Your task to perform on an android device: Open Wikipedia Image 0: 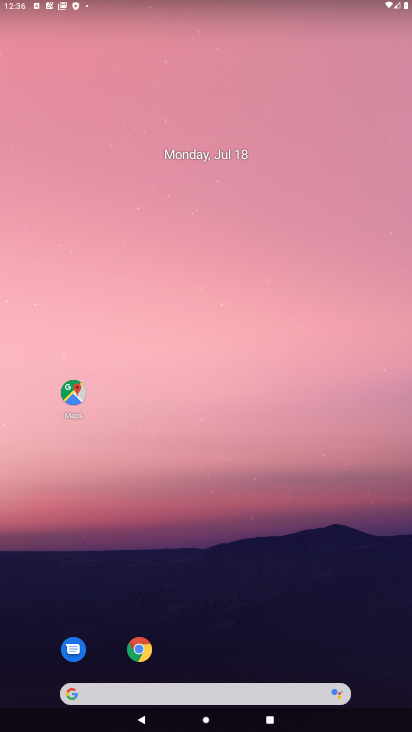
Step 0: click (139, 649)
Your task to perform on an android device: Open Wikipedia Image 1: 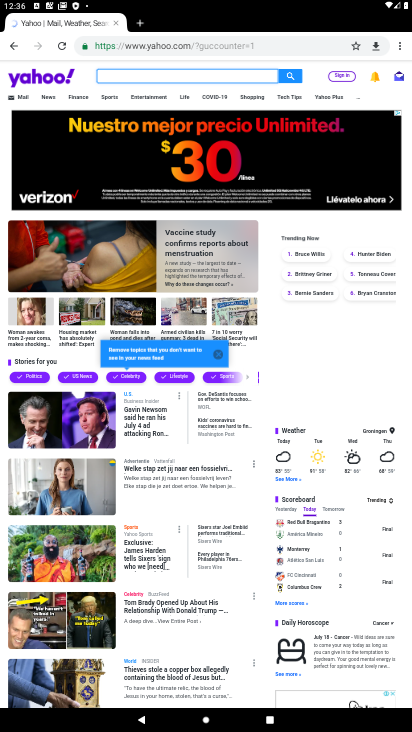
Step 1: click (270, 46)
Your task to perform on an android device: Open Wikipedia Image 2: 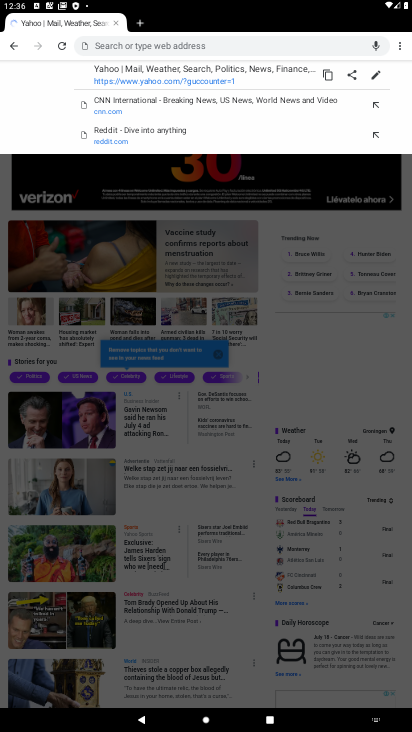
Step 2: type "Wikipedia"
Your task to perform on an android device: Open Wikipedia Image 3: 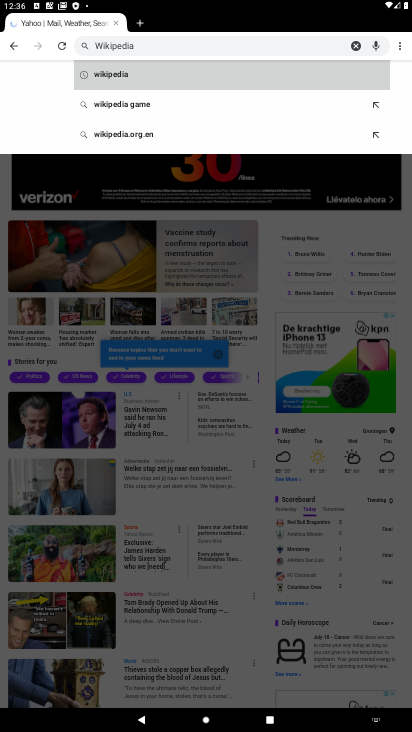
Step 3: click (124, 74)
Your task to perform on an android device: Open Wikipedia Image 4: 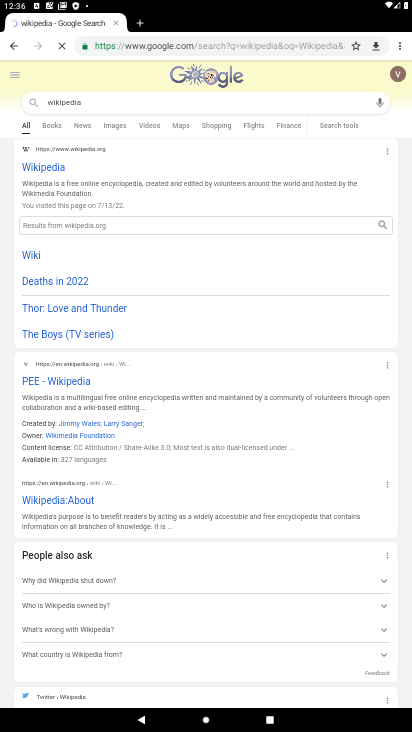
Step 4: click (74, 162)
Your task to perform on an android device: Open Wikipedia Image 5: 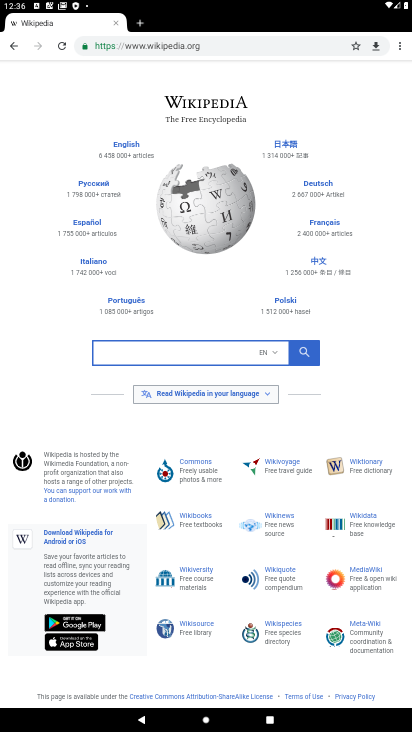
Step 5: task complete